Your task to perform on an android device: find snoozed emails in the gmail app Image 0: 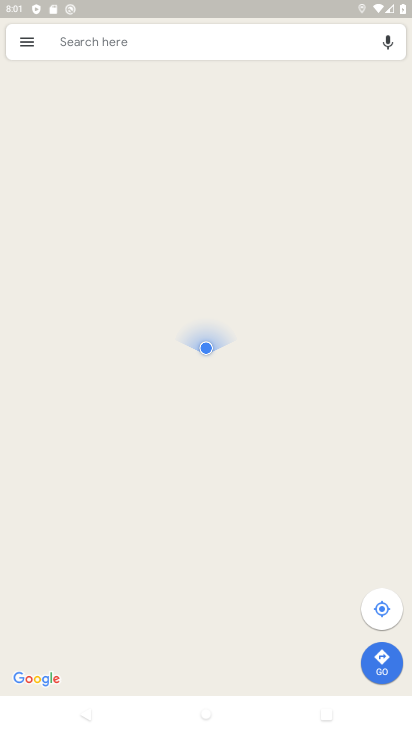
Step 0: press home button
Your task to perform on an android device: find snoozed emails in the gmail app Image 1: 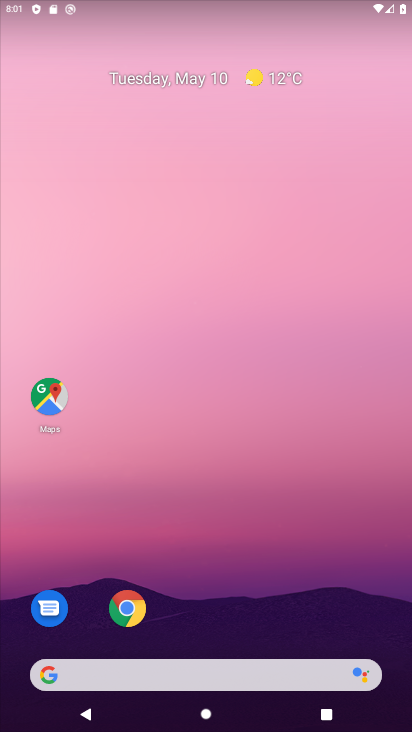
Step 1: drag from (194, 449) to (168, 188)
Your task to perform on an android device: find snoozed emails in the gmail app Image 2: 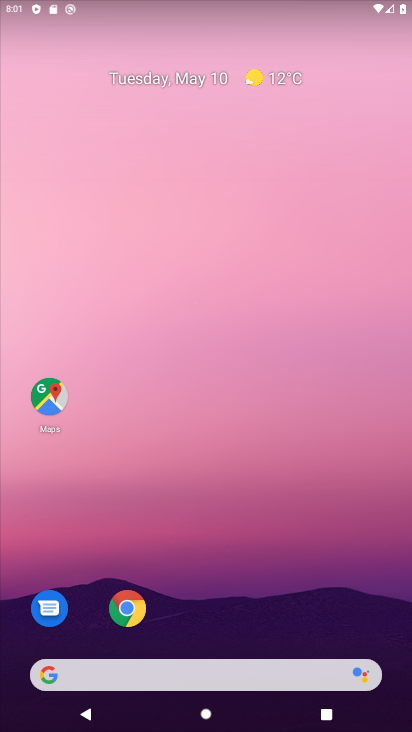
Step 2: drag from (192, 669) to (141, 158)
Your task to perform on an android device: find snoozed emails in the gmail app Image 3: 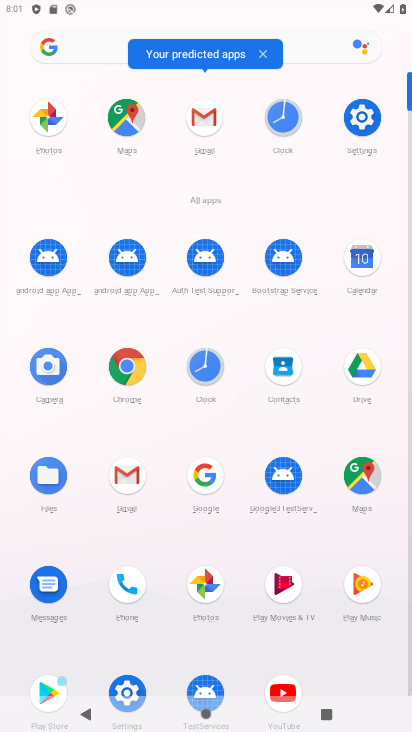
Step 3: click (204, 126)
Your task to perform on an android device: find snoozed emails in the gmail app Image 4: 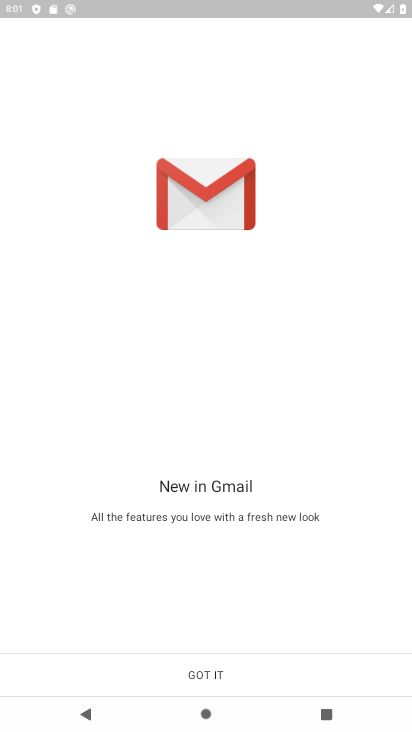
Step 4: click (166, 672)
Your task to perform on an android device: find snoozed emails in the gmail app Image 5: 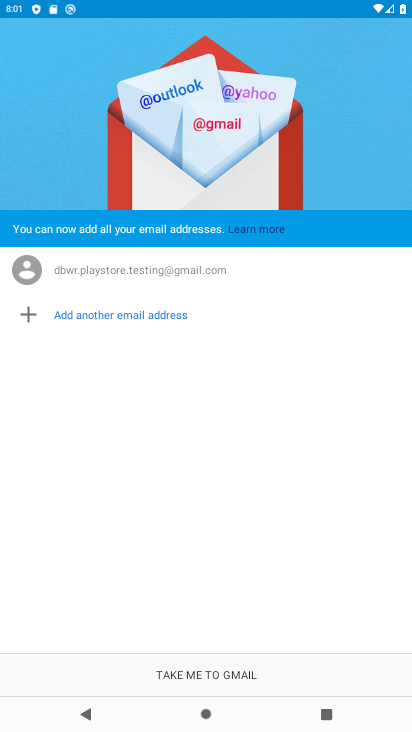
Step 5: click (205, 662)
Your task to perform on an android device: find snoozed emails in the gmail app Image 6: 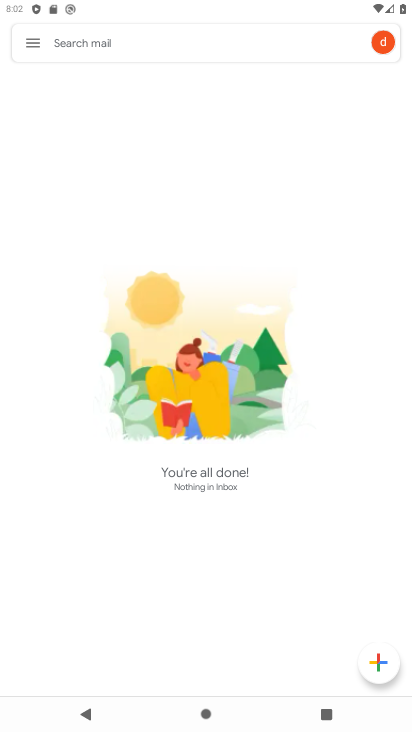
Step 6: click (30, 39)
Your task to perform on an android device: find snoozed emails in the gmail app Image 7: 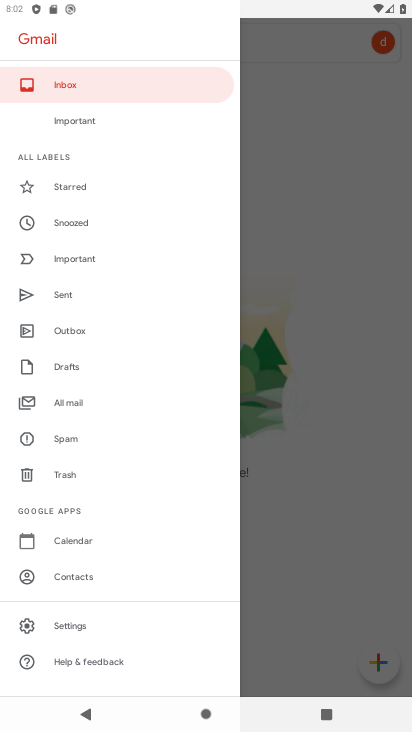
Step 7: click (100, 221)
Your task to perform on an android device: find snoozed emails in the gmail app Image 8: 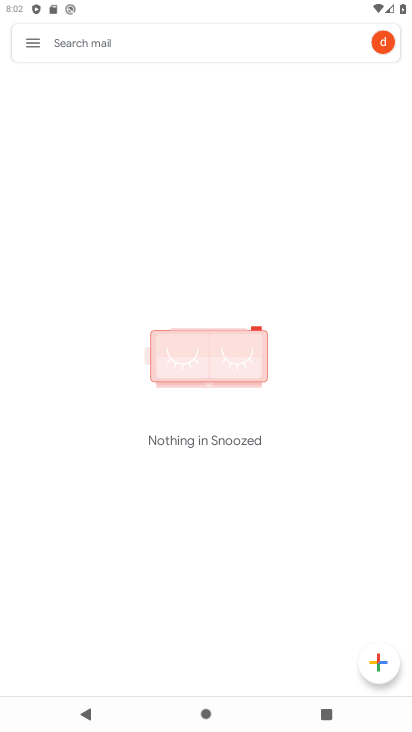
Step 8: task complete